Your task to perform on an android device: Is it going to rain tomorrow? Image 0: 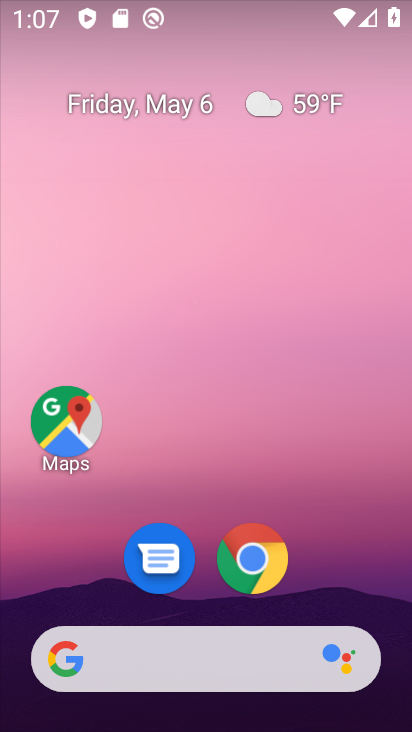
Step 0: click (272, 101)
Your task to perform on an android device: Is it going to rain tomorrow? Image 1: 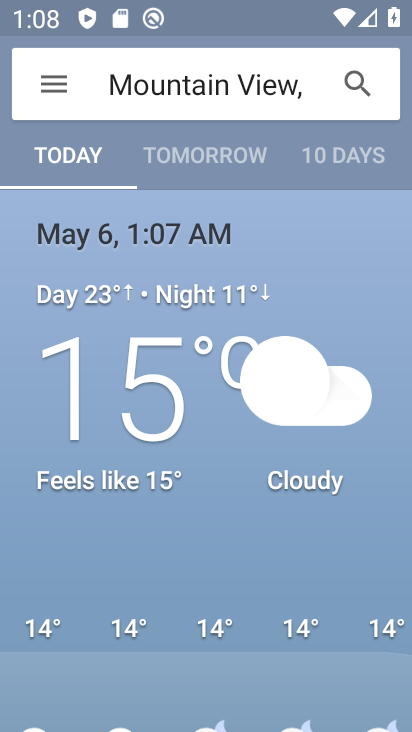
Step 1: click (201, 140)
Your task to perform on an android device: Is it going to rain tomorrow? Image 2: 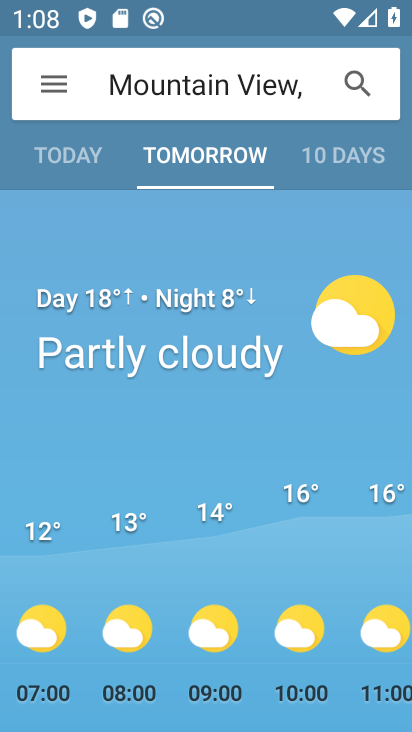
Step 2: task complete